Your task to perform on an android device: Check the weather Image 0: 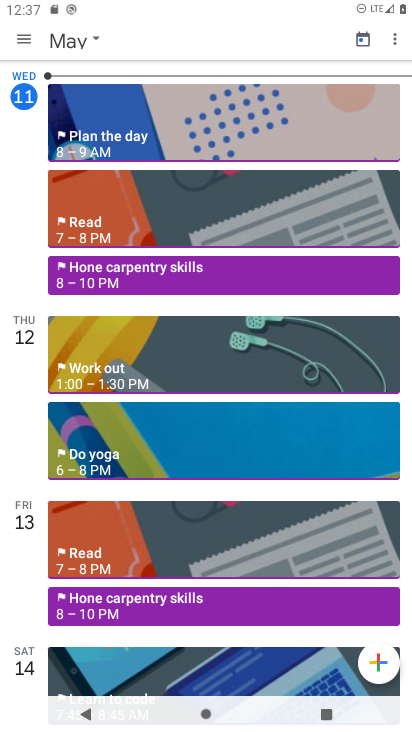
Step 0: press home button
Your task to perform on an android device: Check the weather Image 1: 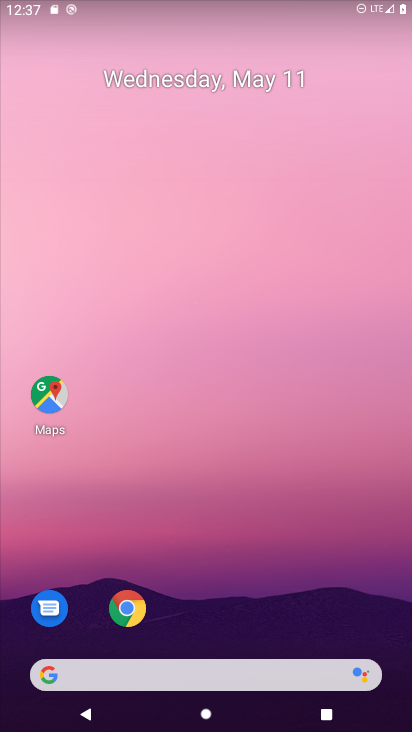
Step 1: click (233, 666)
Your task to perform on an android device: Check the weather Image 2: 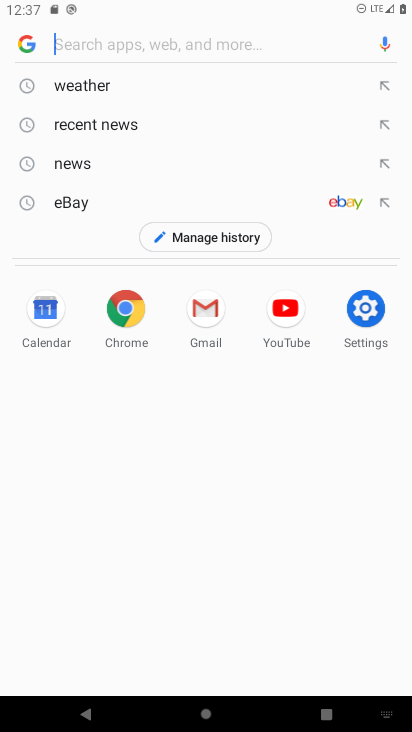
Step 2: click (88, 87)
Your task to perform on an android device: Check the weather Image 3: 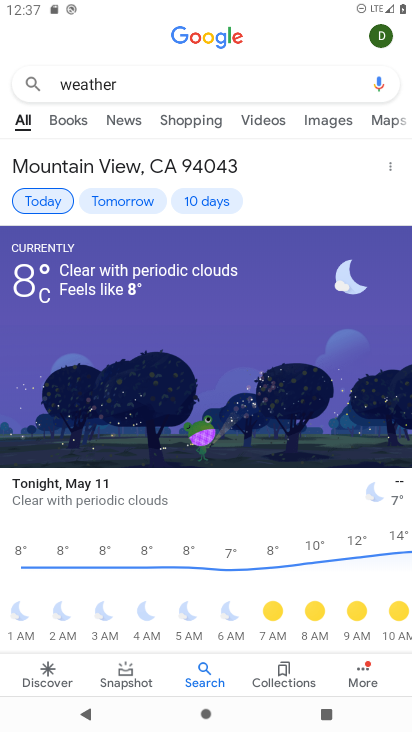
Step 3: task complete